Your task to perform on an android device: Go to privacy settings Image 0: 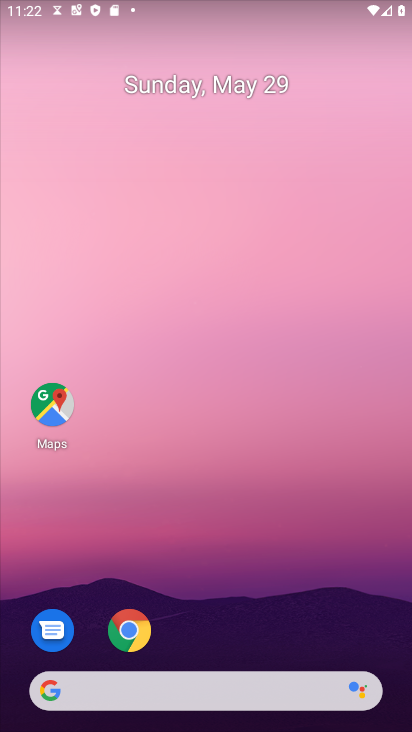
Step 0: drag from (153, 529) to (167, 101)
Your task to perform on an android device: Go to privacy settings Image 1: 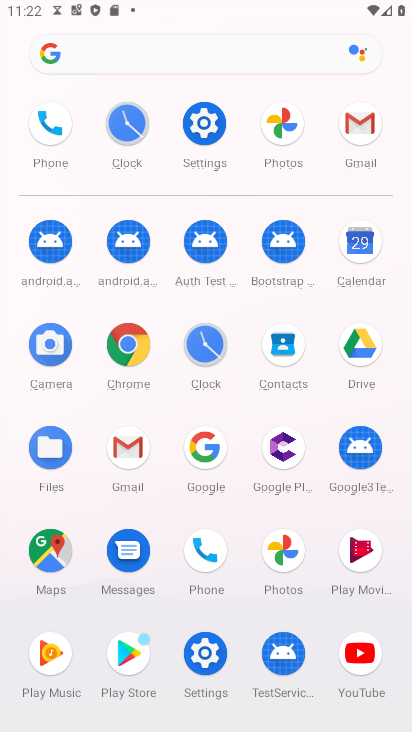
Step 1: click (198, 122)
Your task to perform on an android device: Go to privacy settings Image 2: 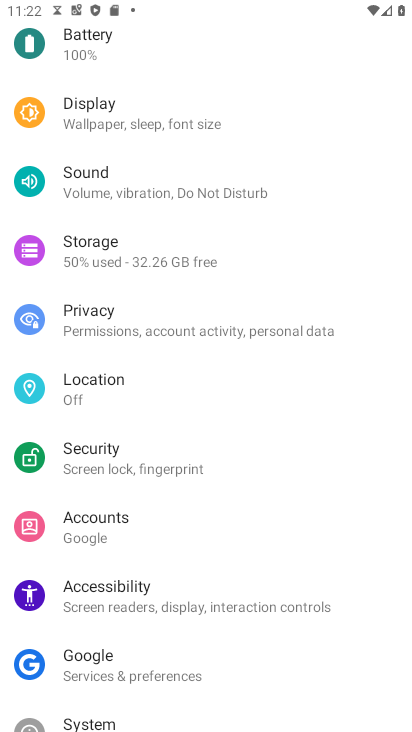
Step 2: click (214, 337)
Your task to perform on an android device: Go to privacy settings Image 3: 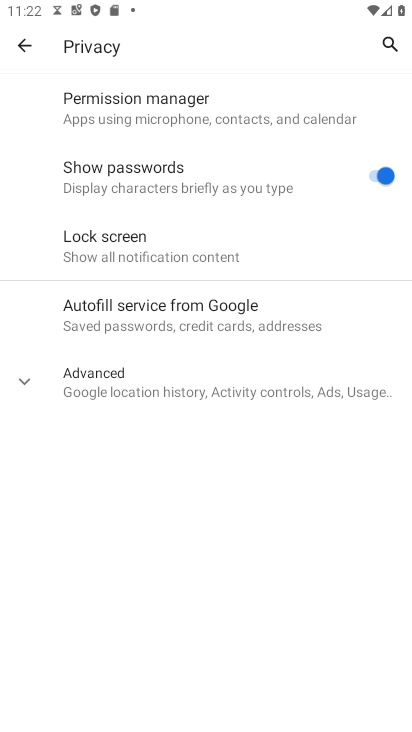
Step 3: task complete